Your task to perform on an android device: Open settings Image 0: 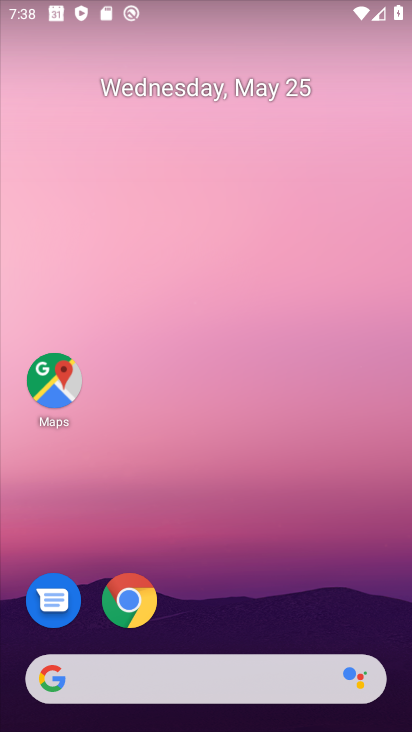
Step 0: drag from (261, 603) to (316, 214)
Your task to perform on an android device: Open settings Image 1: 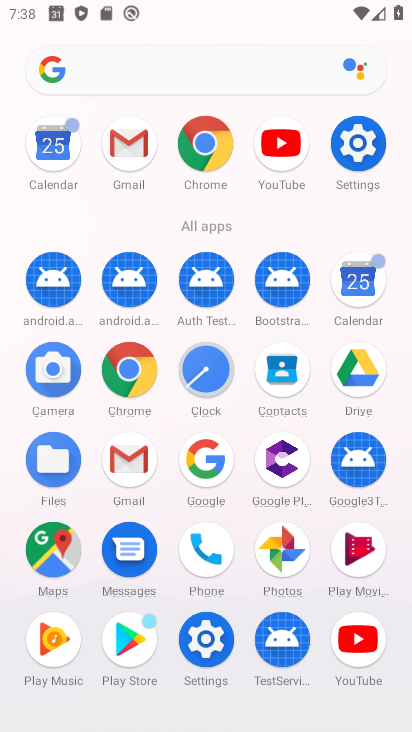
Step 1: click (354, 149)
Your task to perform on an android device: Open settings Image 2: 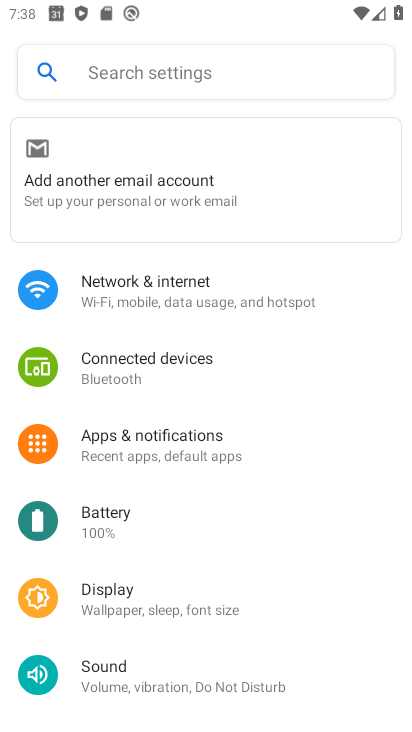
Step 2: task complete